Your task to perform on an android device: Add "corsair k70" to the cart on amazon.com, then select checkout. Image 0: 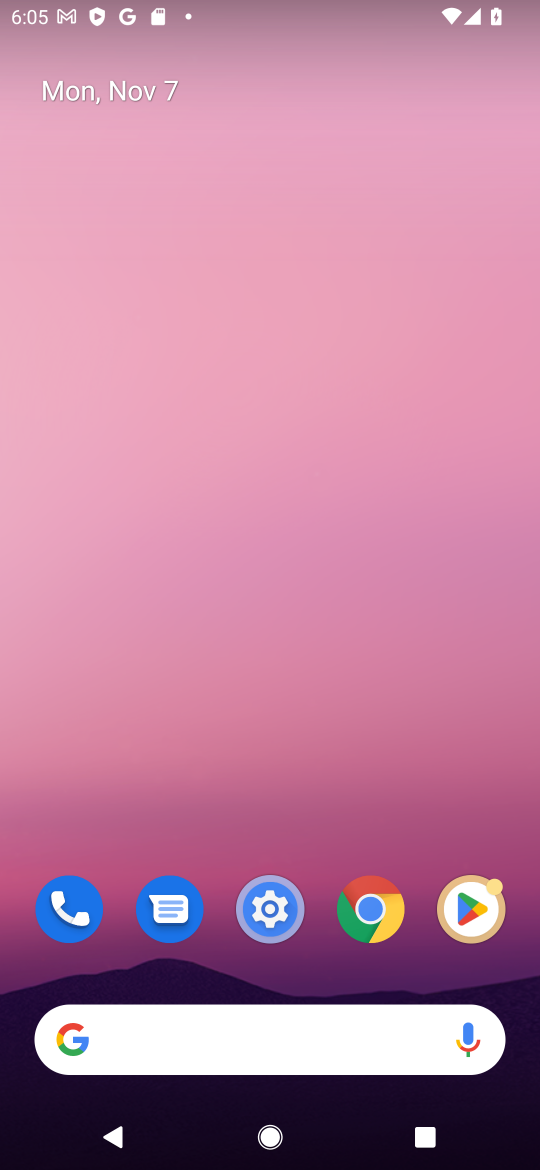
Step 0: click (375, 906)
Your task to perform on an android device: Add "corsair k70" to the cart on amazon.com, then select checkout. Image 1: 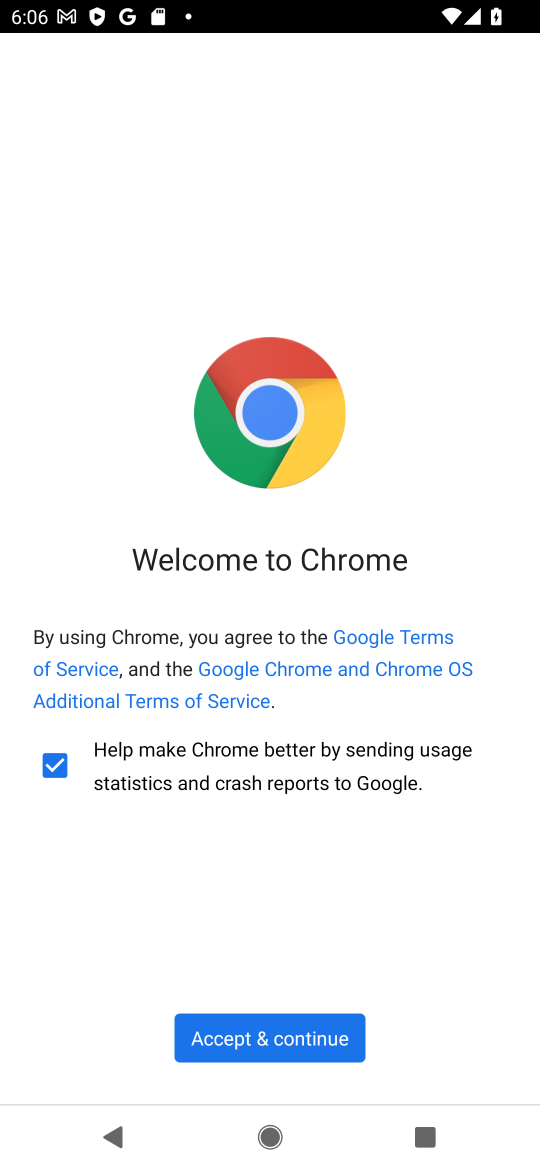
Step 1: click (278, 1041)
Your task to perform on an android device: Add "corsair k70" to the cart on amazon.com, then select checkout. Image 2: 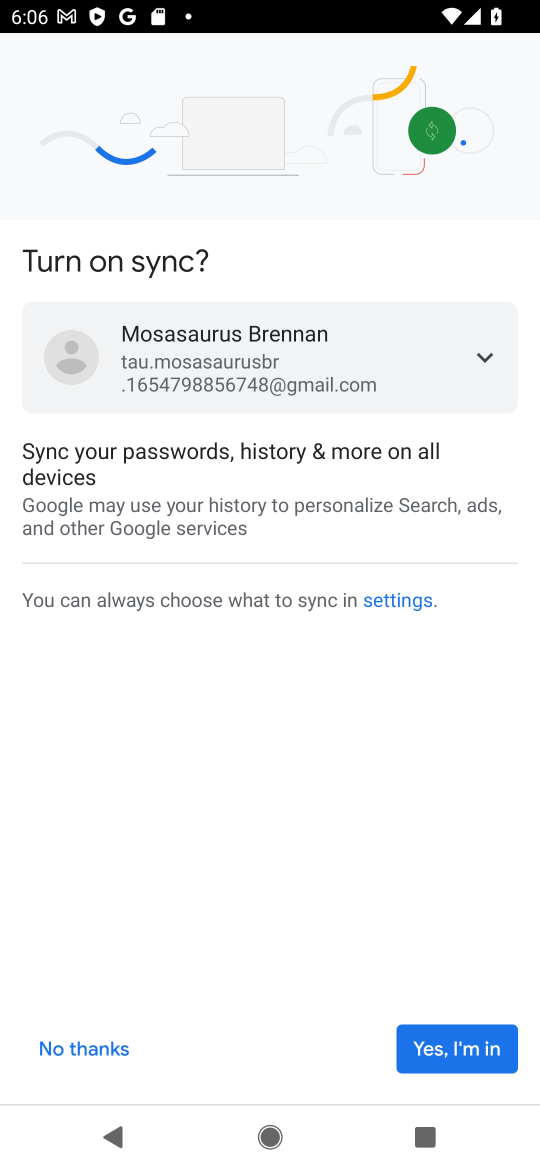
Step 2: click (418, 1046)
Your task to perform on an android device: Add "corsair k70" to the cart on amazon.com, then select checkout. Image 3: 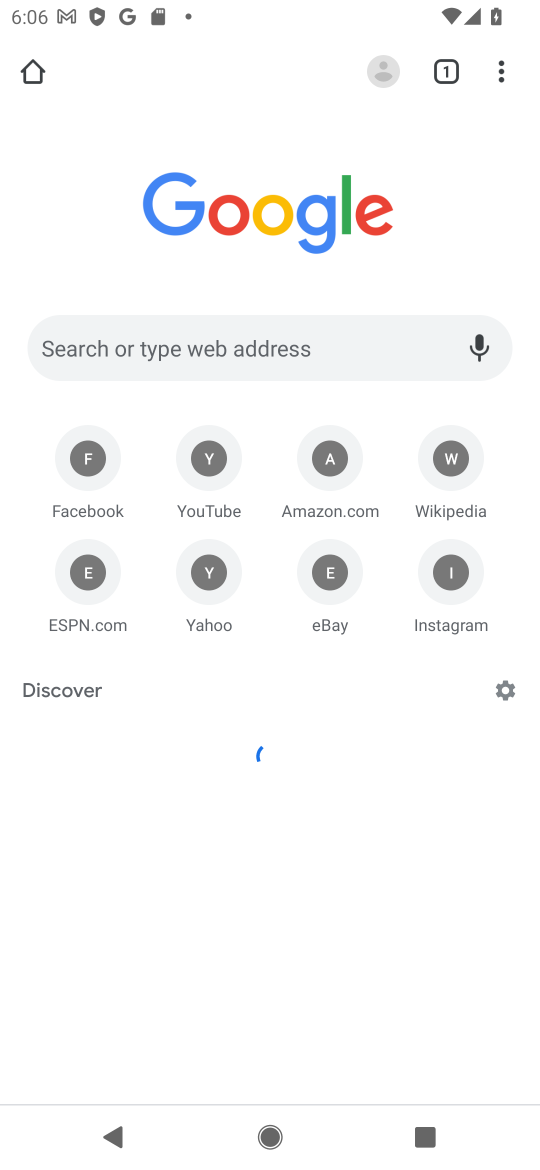
Step 3: click (238, 351)
Your task to perform on an android device: Add "corsair k70" to the cart on amazon.com, then select checkout. Image 4: 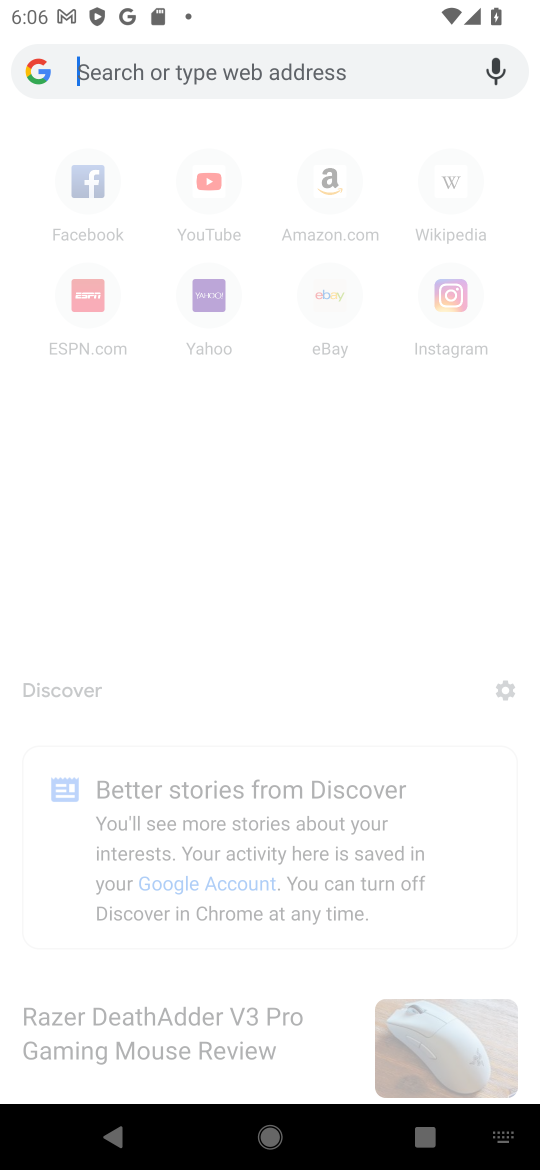
Step 4: press enter
Your task to perform on an android device: Add "corsair k70" to the cart on amazon.com, then select checkout. Image 5: 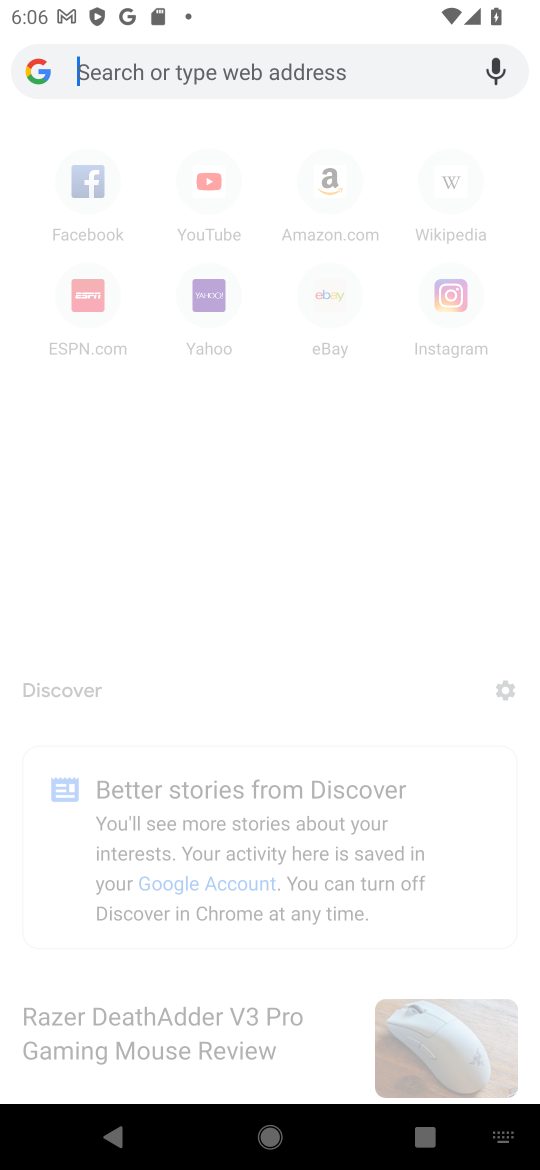
Step 5: type "amazon"
Your task to perform on an android device: Add "corsair k70" to the cart on amazon.com, then select checkout. Image 6: 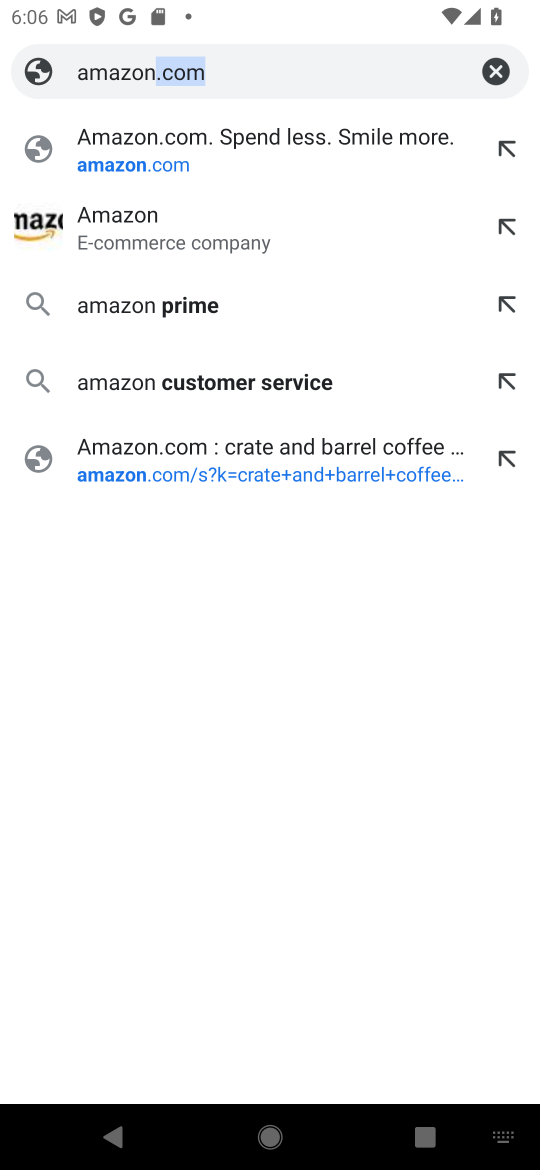
Step 6: click (216, 139)
Your task to perform on an android device: Add "corsair k70" to the cart on amazon.com, then select checkout. Image 7: 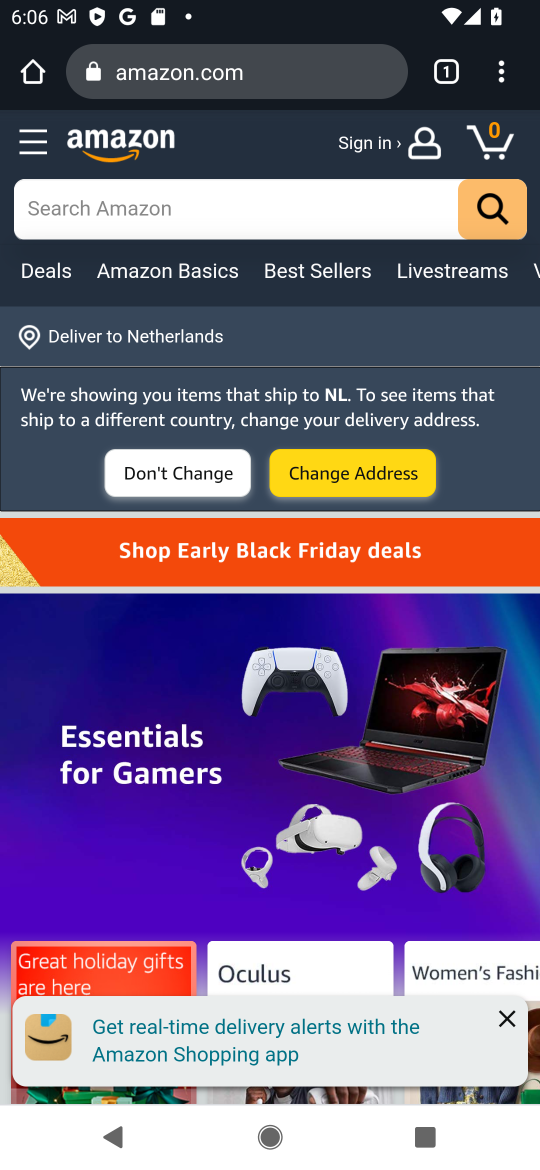
Step 7: click (147, 203)
Your task to perform on an android device: Add "corsair k70" to the cart on amazon.com, then select checkout. Image 8: 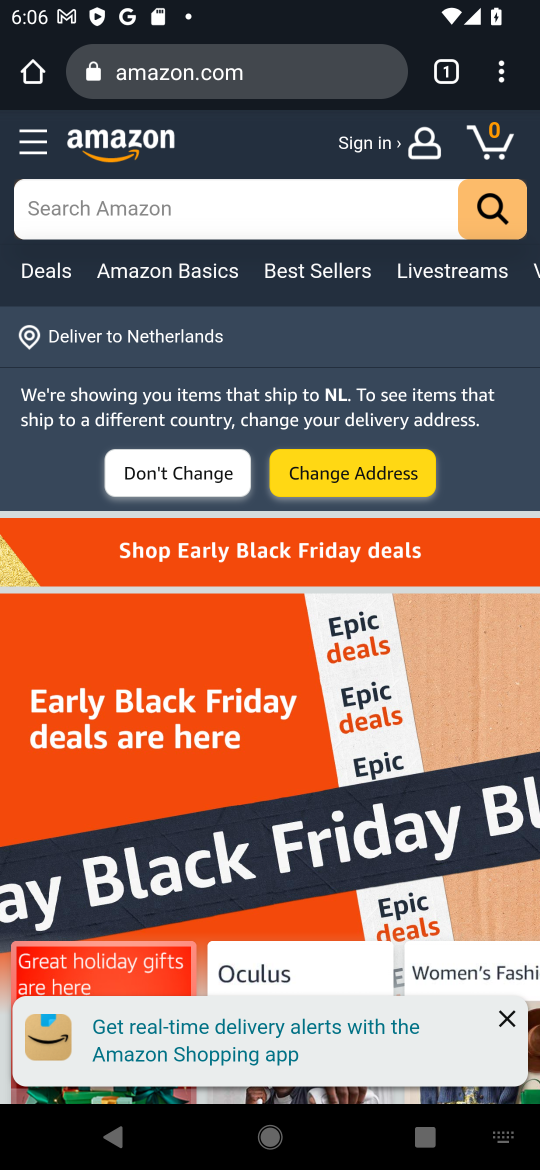
Step 8: press enter
Your task to perform on an android device: Add "corsair k70" to the cart on amazon.com, then select checkout. Image 9: 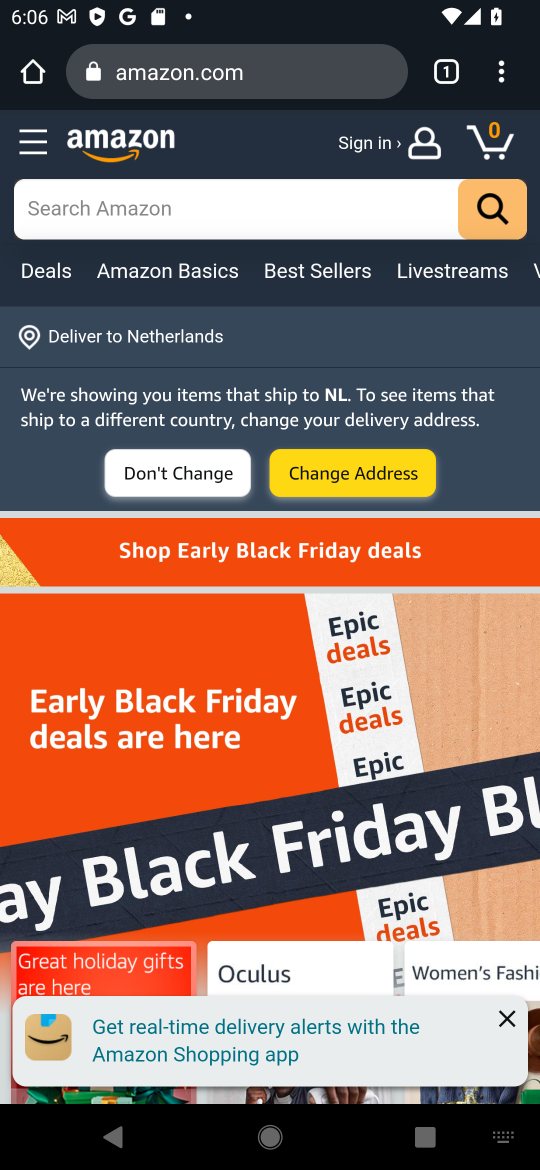
Step 9: type "corsair k70""
Your task to perform on an android device: Add "corsair k70" to the cart on amazon.com, then select checkout. Image 10: 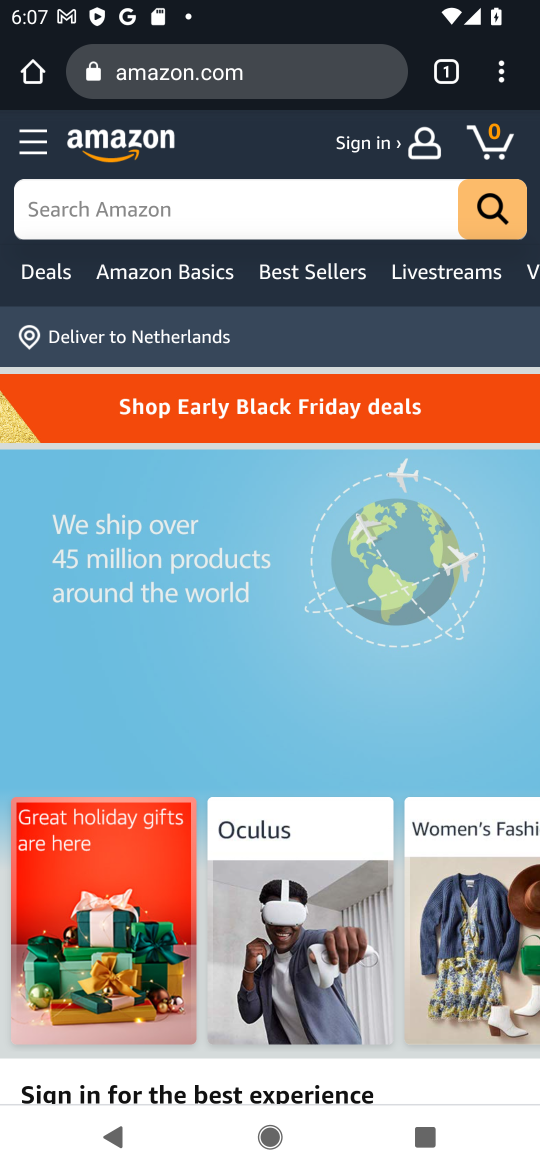
Step 10: click (110, 203)
Your task to perform on an android device: Add "corsair k70" to the cart on amazon.com, then select checkout. Image 11: 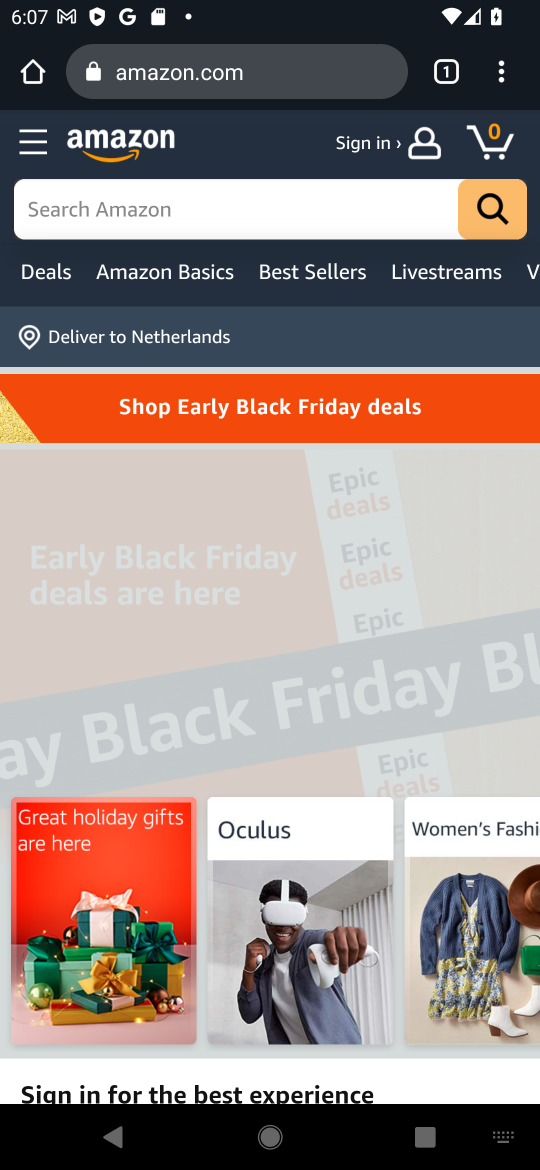
Step 11: press enter
Your task to perform on an android device: Add "corsair k70" to the cart on amazon.com, then select checkout. Image 12: 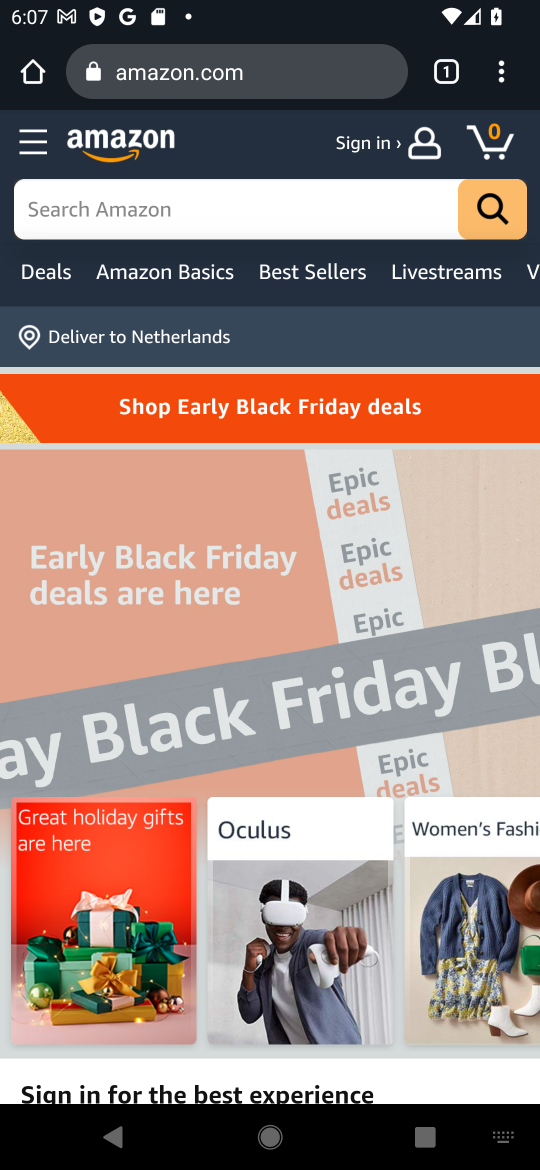
Step 12: type "corsair k70""
Your task to perform on an android device: Add "corsair k70" to the cart on amazon.com, then select checkout. Image 13: 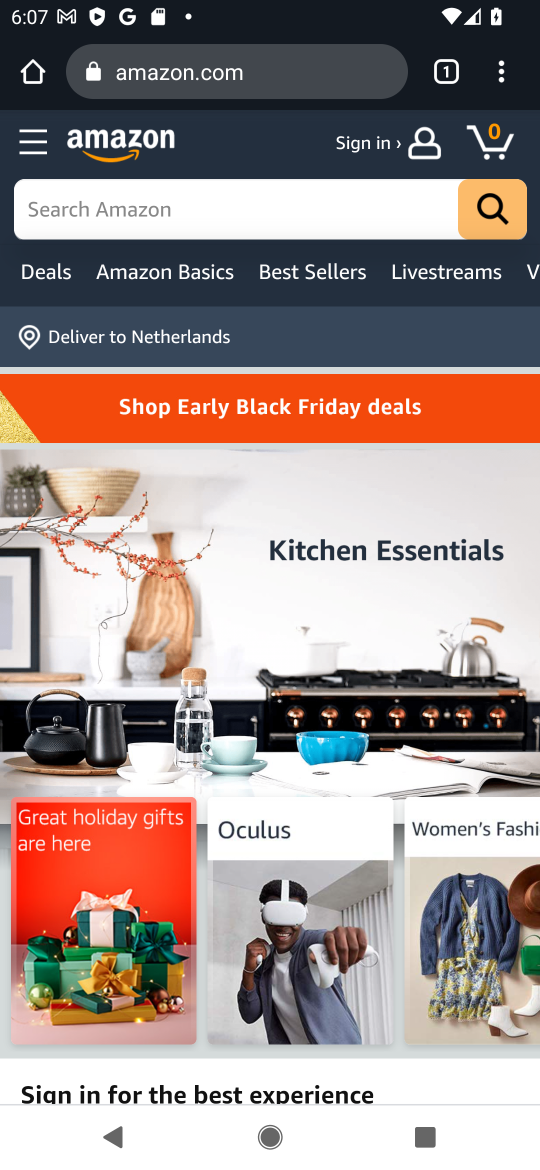
Step 13: click (124, 196)
Your task to perform on an android device: Add "corsair k70" to the cart on amazon.com, then select checkout. Image 14: 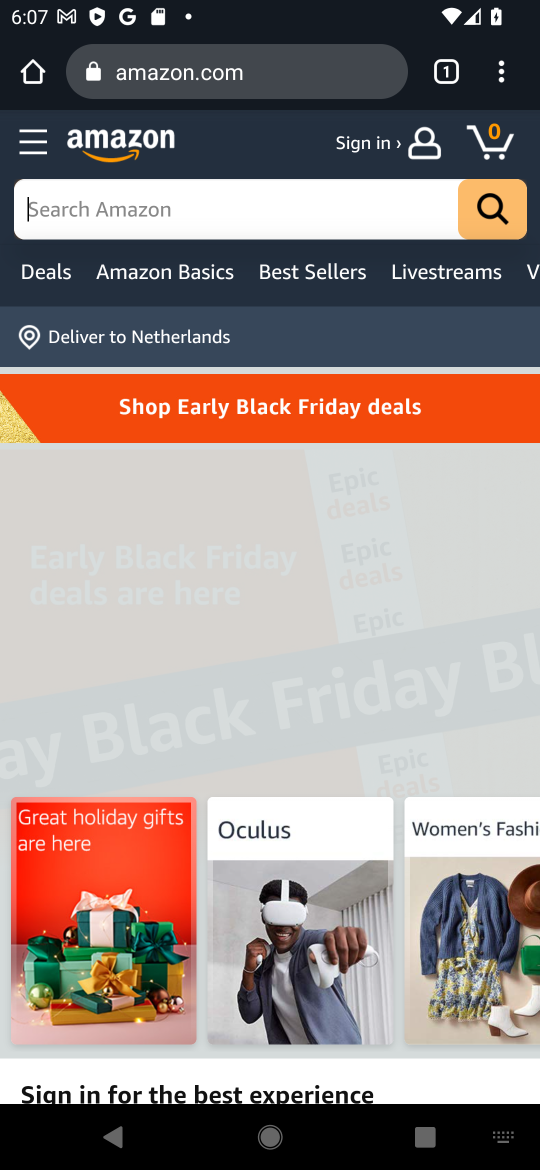
Step 14: type "corsair k70" "
Your task to perform on an android device: Add "corsair k70" to the cart on amazon.com, then select checkout. Image 15: 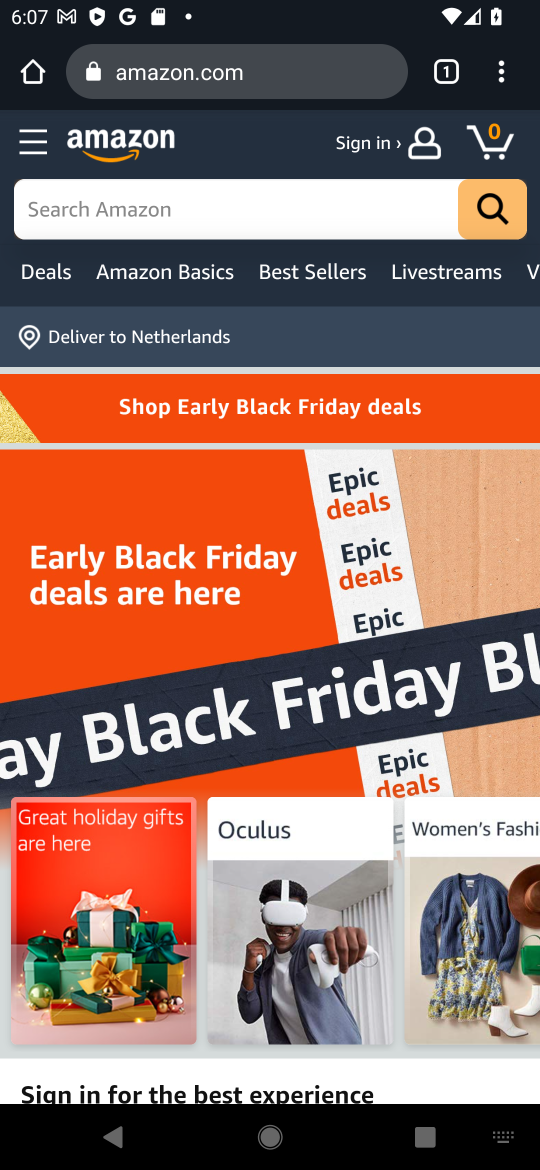
Step 15: type "corsir k70"
Your task to perform on an android device: Add "corsair k70" to the cart on amazon.com, then select checkout. Image 16: 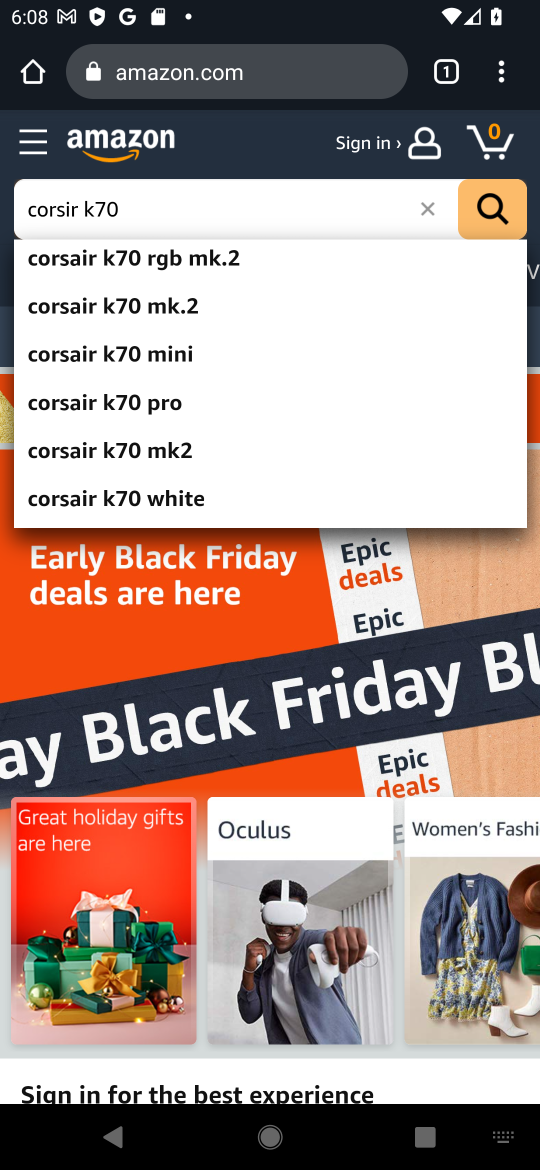
Step 16: click (152, 356)
Your task to perform on an android device: Add "corsair k70" to the cart on amazon.com, then select checkout. Image 17: 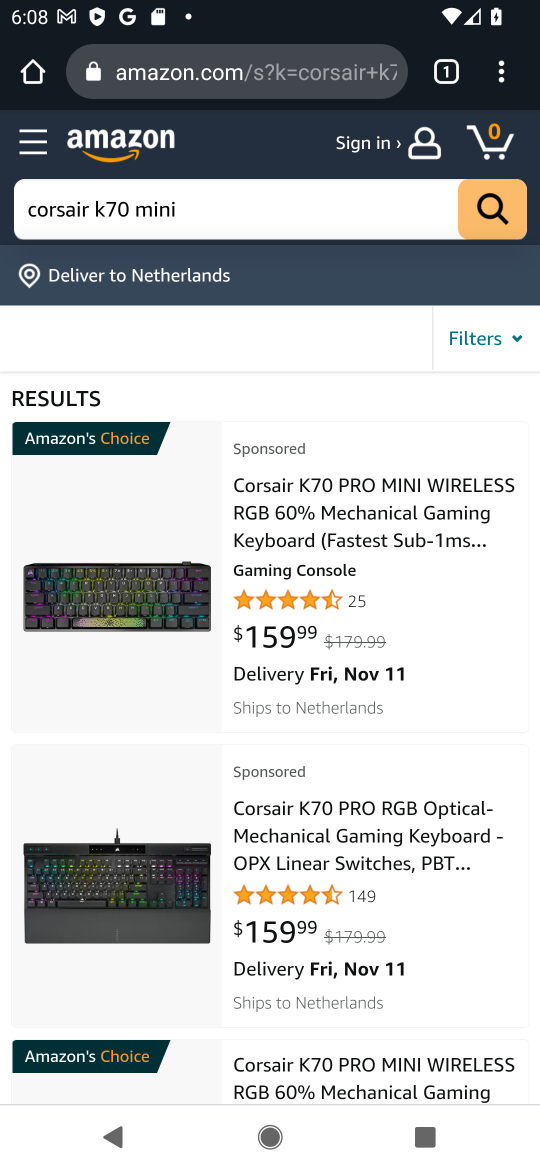
Step 17: click (341, 525)
Your task to perform on an android device: Add "corsair k70" to the cart on amazon.com, then select checkout. Image 18: 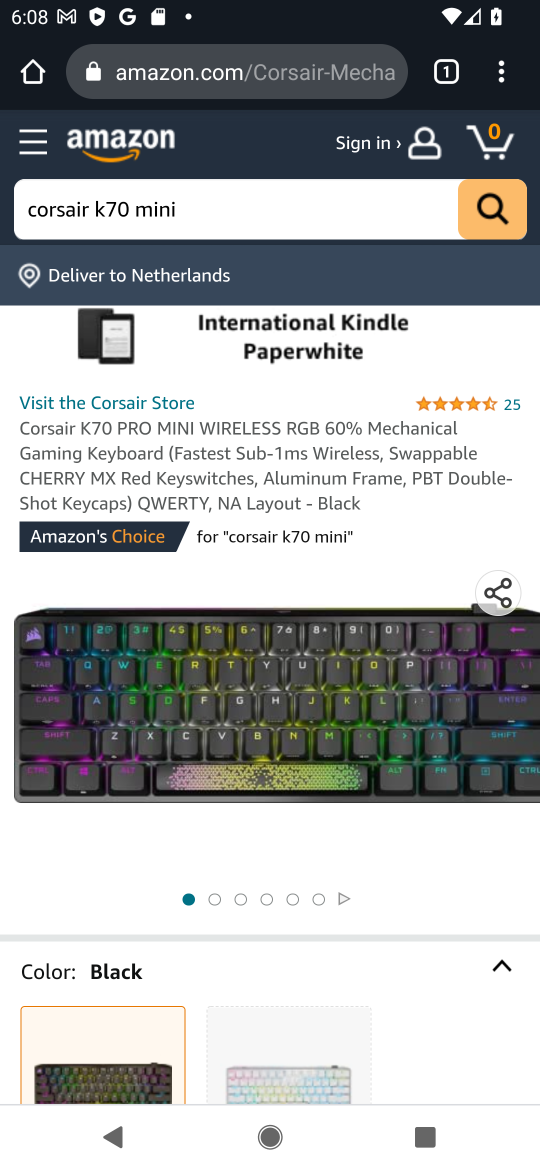
Step 18: drag from (241, 907) to (86, 411)
Your task to perform on an android device: Add "corsair k70" to the cart on amazon.com, then select checkout. Image 19: 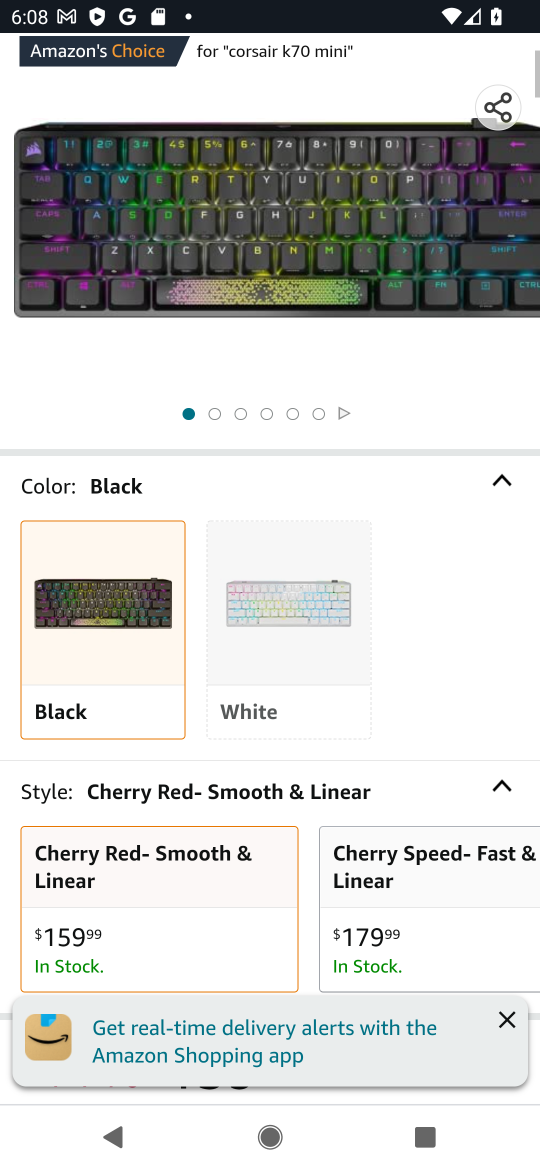
Step 19: drag from (378, 662) to (463, 147)
Your task to perform on an android device: Add "corsair k70" to the cart on amazon.com, then select checkout. Image 20: 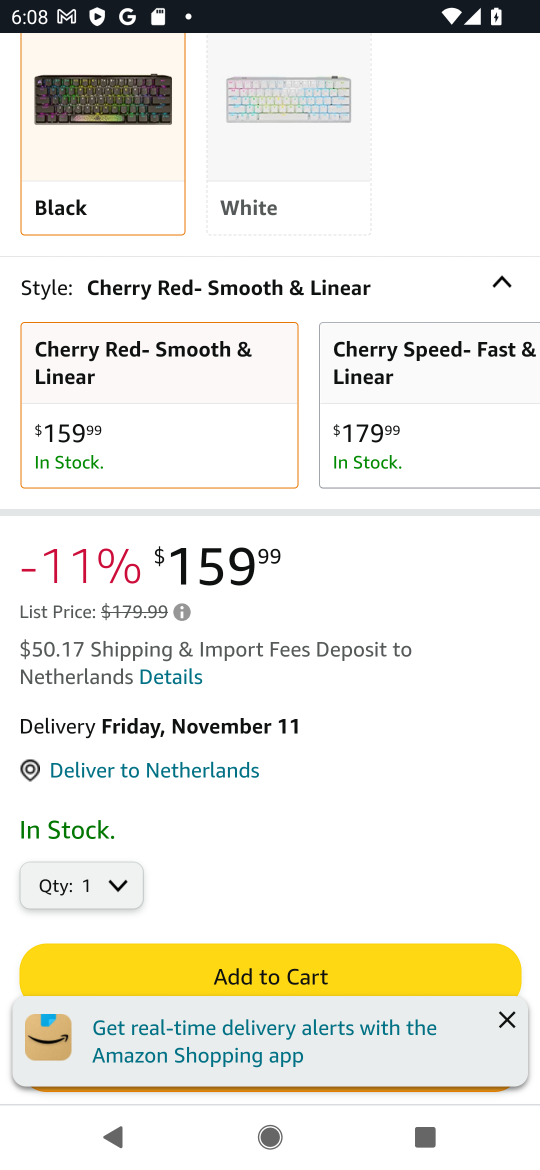
Step 20: click (292, 961)
Your task to perform on an android device: Add "corsair k70" to the cart on amazon.com, then select checkout. Image 21: 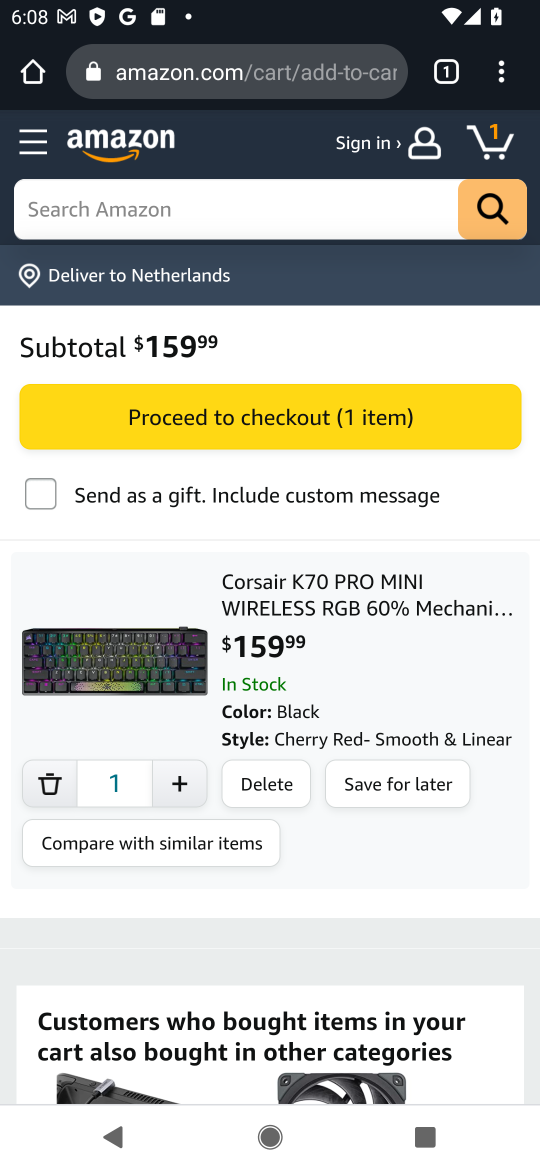
Step 21: click (295, 419)
Your task to perform on an android device: Add "corsair k70" to the cart on amazon.com, then select checkout. Image 22: 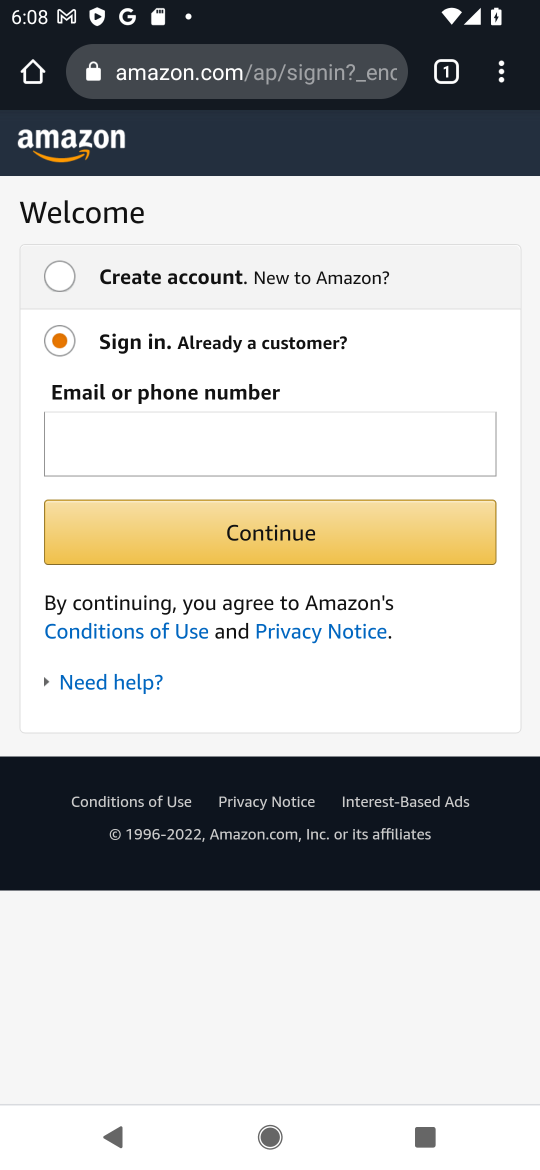
Step 22: task complete